Your task to perform on an android device: open sync settings in chrome Image 0: 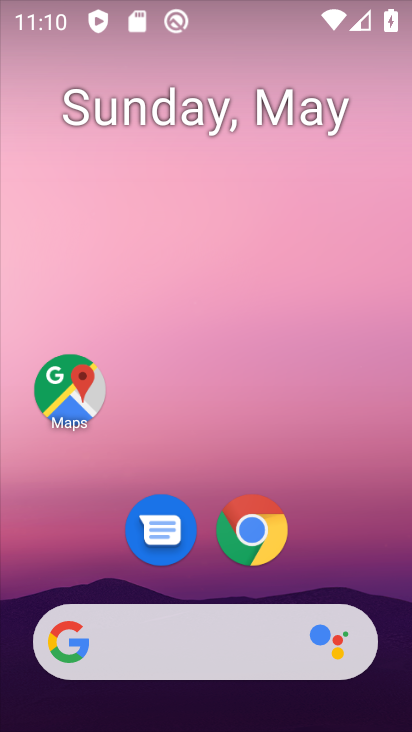
Step 0: click (267, 538)
Your task to perform on an android device: open sync settings in chrome Image 1: 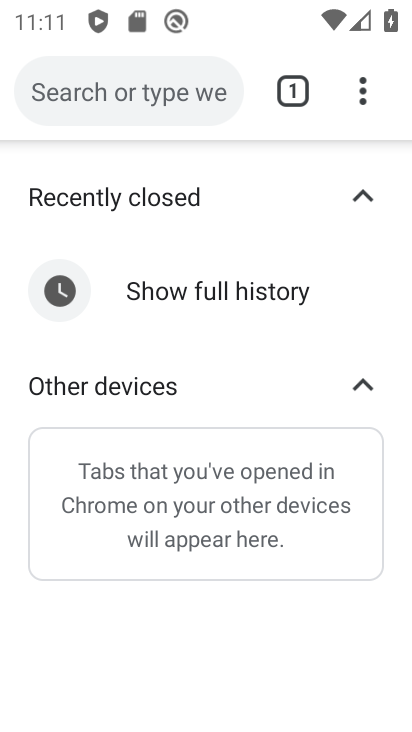
Step 1: task complete